Your task to perform on an android device: set the timer Image 0: 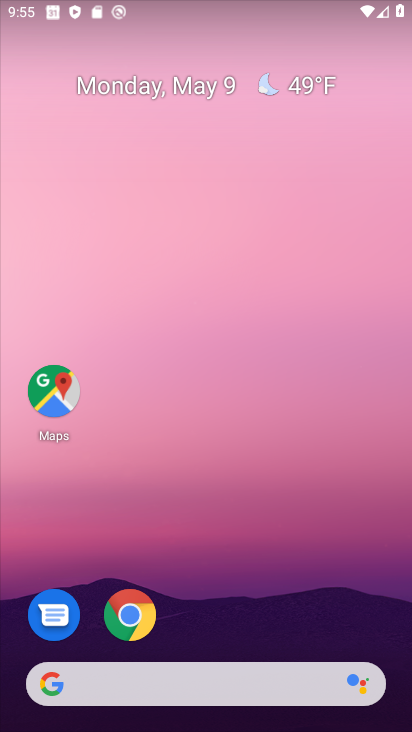
Step 0: drag from (267, 619) to (277, 117)
Your task to perform on an android device: set the timer Image 1: 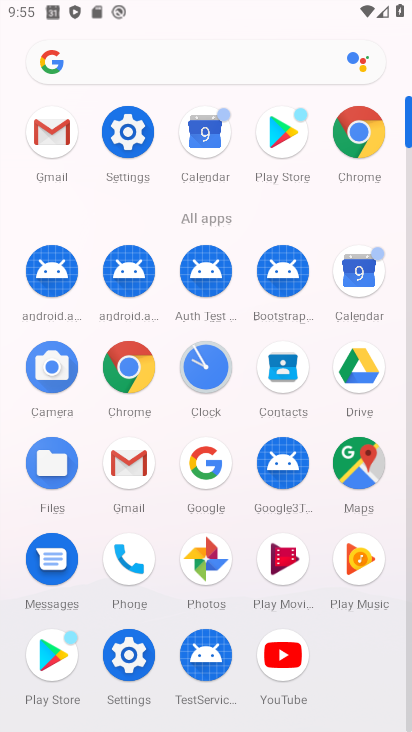
Step 1: click (205, 375)
Your task to perform on an android device: set the timer Image 2: 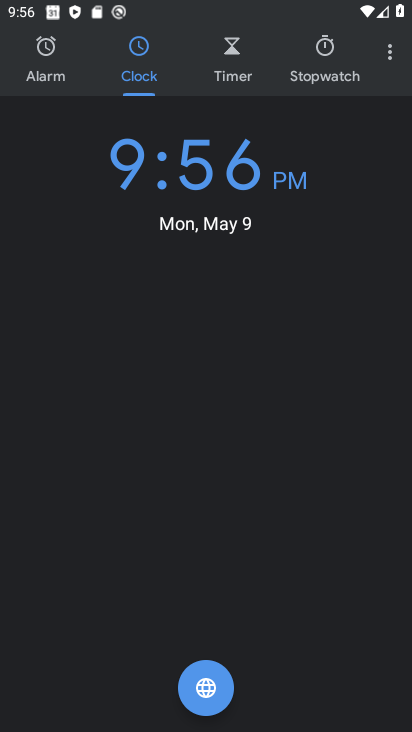
Step 2: click (239, 72)
Your task to perform on an android device: set the timer Image 3: 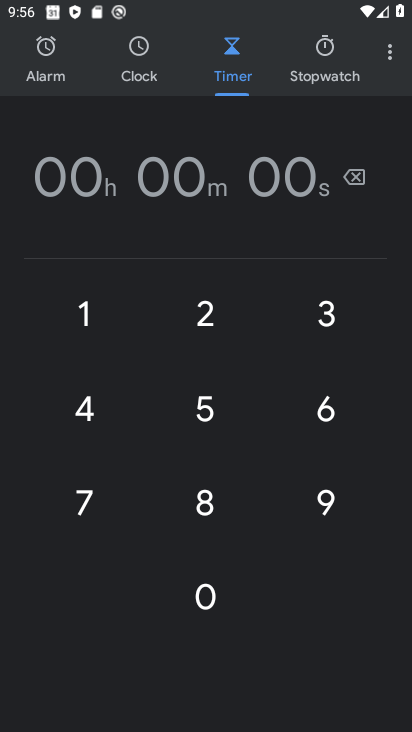
Step 3: click (90, 314)
Your task to perform on an android device: set the timer Image 4: 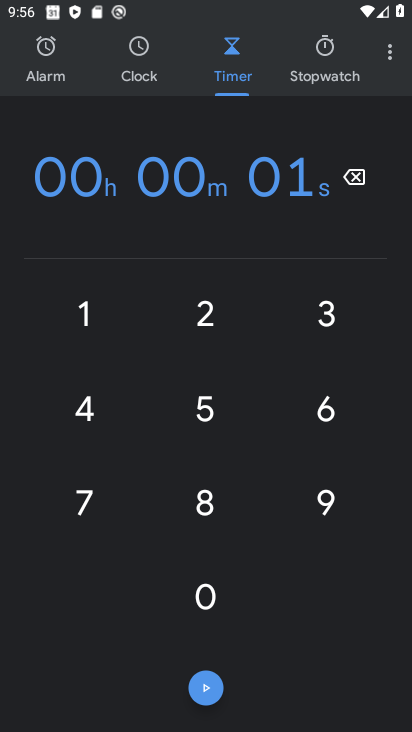
Step 4: click (191, 312)
Your task to perform on an android device: set the timer Image 5: 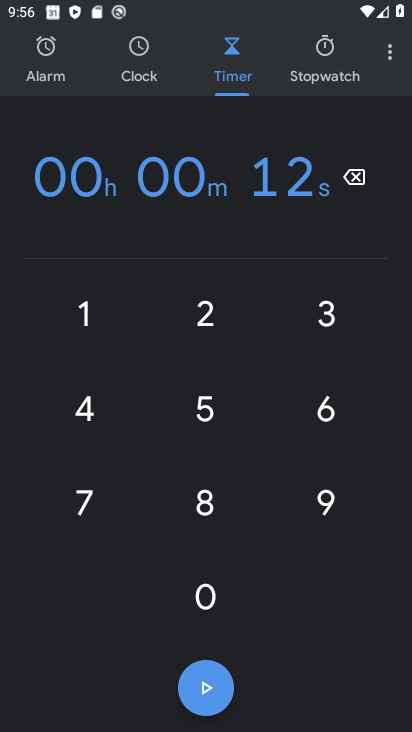
Step 5: click (84, 320)
Your task to perform on an android device: set the timer Image 6: 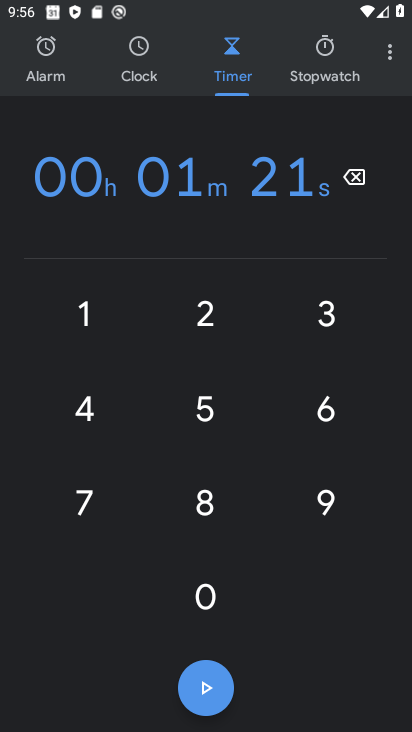
Step 6: click (184, 320)
Your task to perform on an android device: set the timer Image 7: 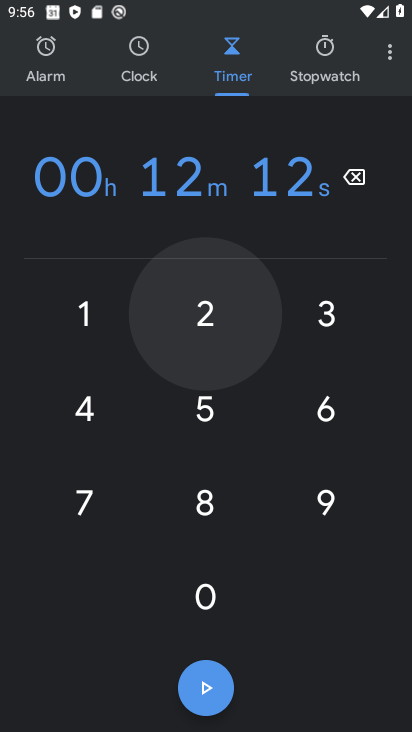
Step 7: click (207, 398)
Your task to perform on an android device: set the timer Image 8: 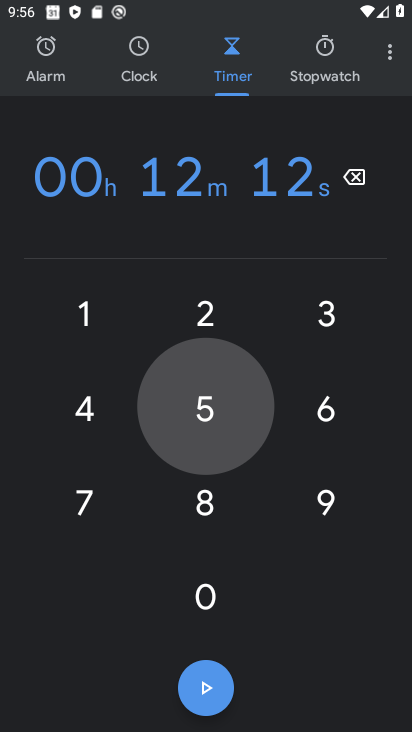
Step 8: click (208, 403)
Your task to perform on an android device: set the timer Image 9: 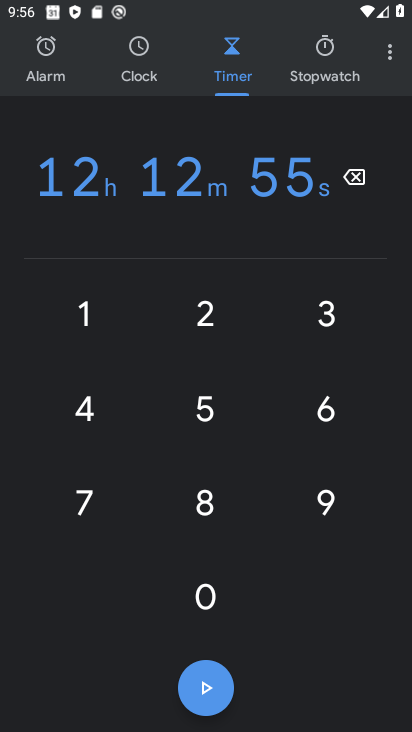
Step 9: click (225, 692)
Your task to perform on an android device: set the timer Image 10: 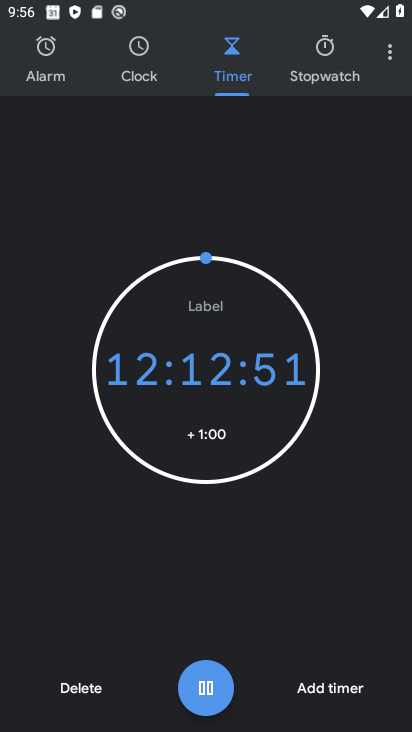
Step 10: task complete